Your task to perform on an android device: Is it going to rain tomorrow? Image 0: 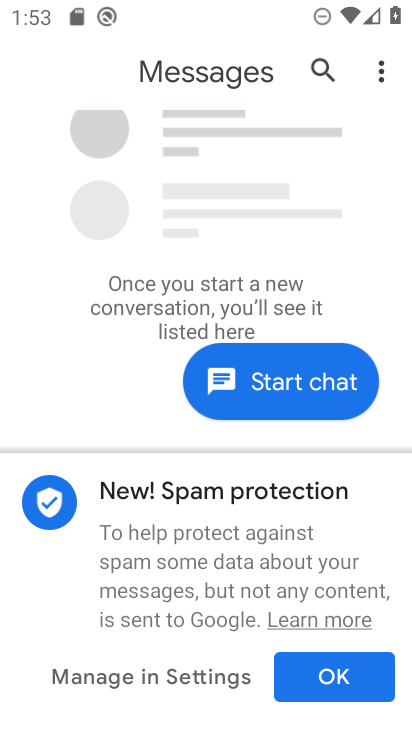
Step 0: press home button
Your task to perform on an android device: Is it going to rain tomorrow? Image 1: 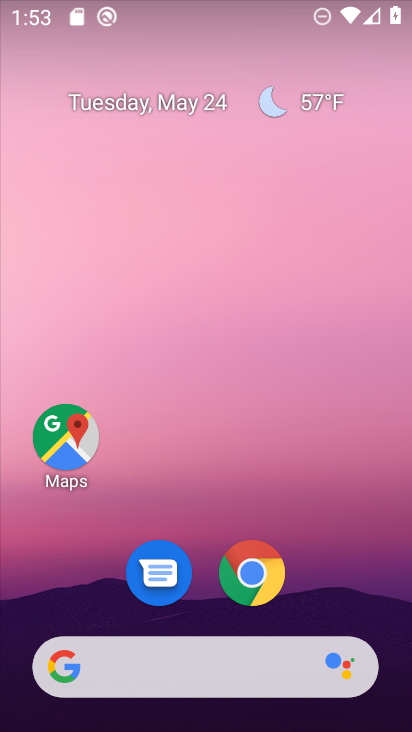
Step 1: drag from (363, 593) to (339, 185)
Your task to perform on an android device: Is it going to rain tomorrow? Image 2: 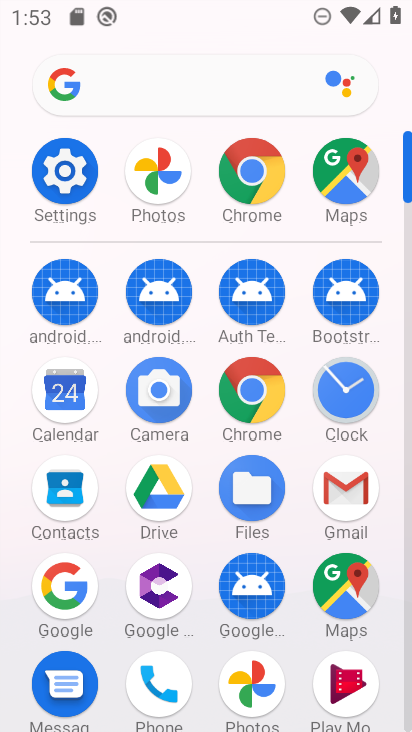
Step 2: click (239, 172)
Your task to perform on an android device: Is it going to rain tomorrow? Image 3: 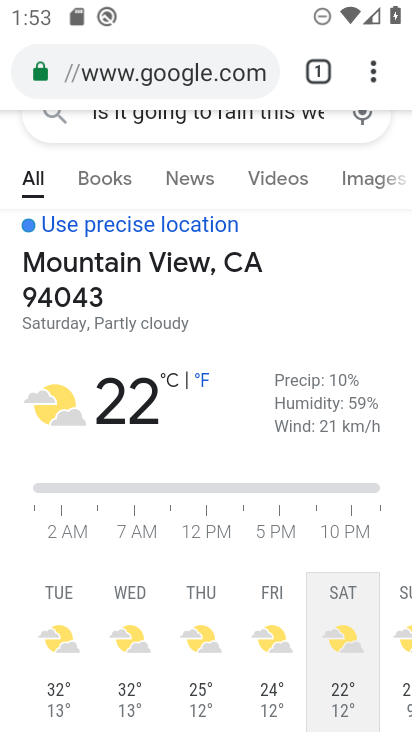
Step 3: click (257, 75)
Your task to perform on an android device: Is it going to rain tomorrow? Image 4: 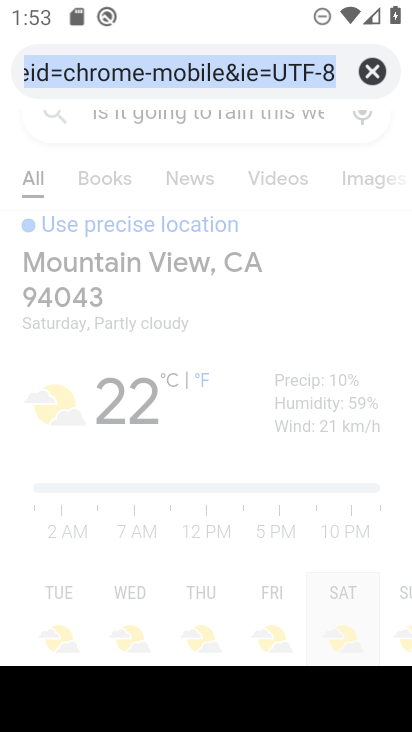
Step 4: click (374, 74)
Your task to perform on an android device: Is it going to rain tomorrow? Image 5: 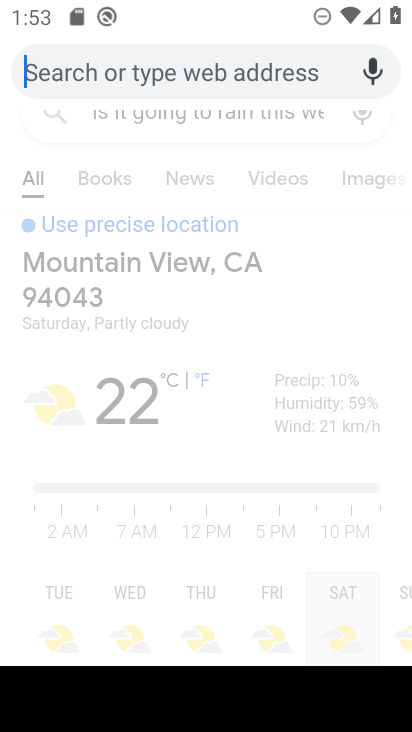
Step 5: type "is it going to rain tomorrow"
Your task to perform on an android device: Is it going to rain tomorrow? Image 6: 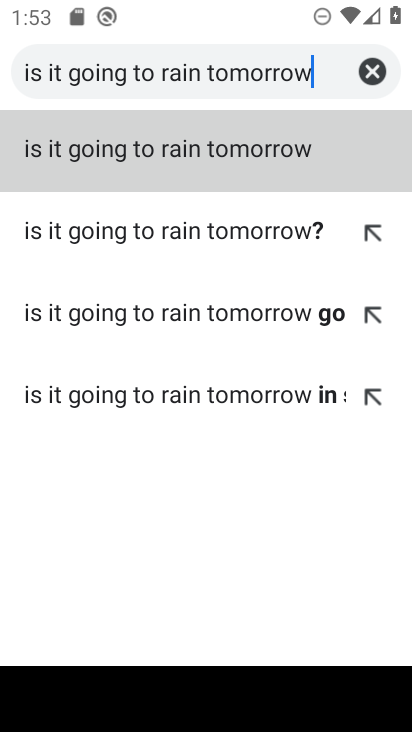
Step 6: click (246, 162)
Your task to perform on an android device: Is it going to rain tomorrow? Image 7: 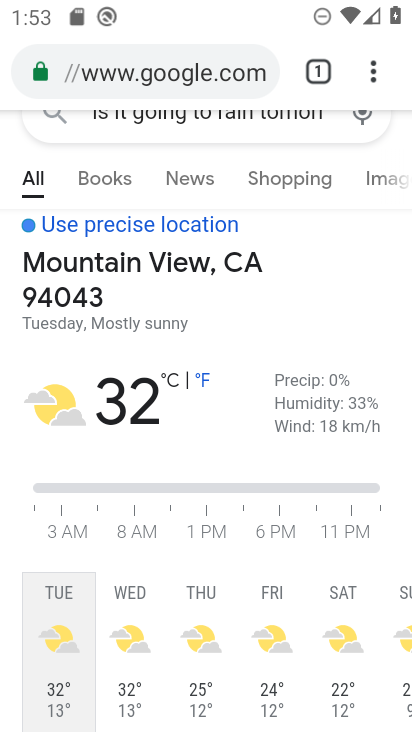
Step 7: task complete